Your task to perform on an android device: find photos in the google photos app Image 0: 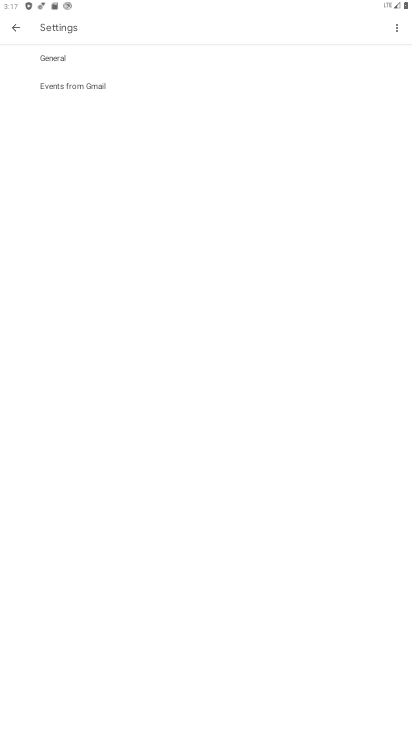
Step 0: press home button
Your task to perform on an android device: find photos in the google photos app Image 1: 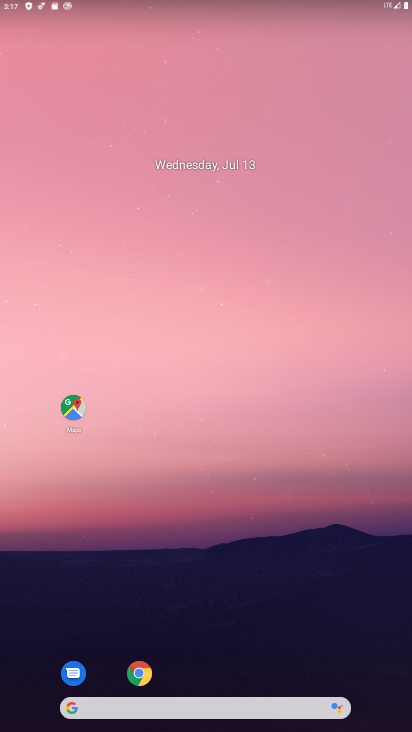
Step 1: drag from (225, 720) to (224, 73)
Your task to perform on an android device: find photos in the google photos app Image 2: 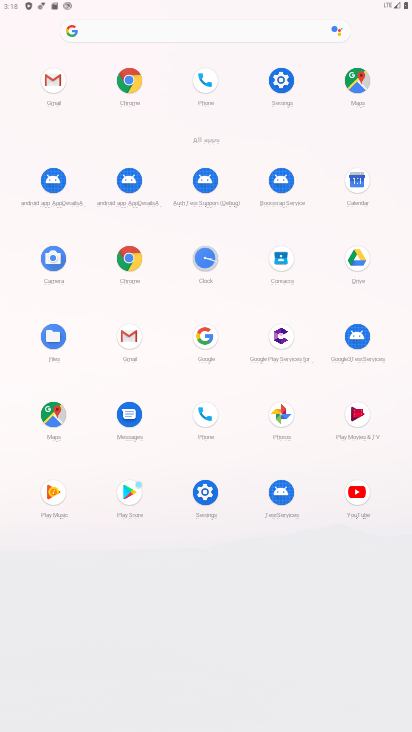
Step 2: click (279, 415)
Your task to perform on an android device: find photos in the google photos app Image 3: 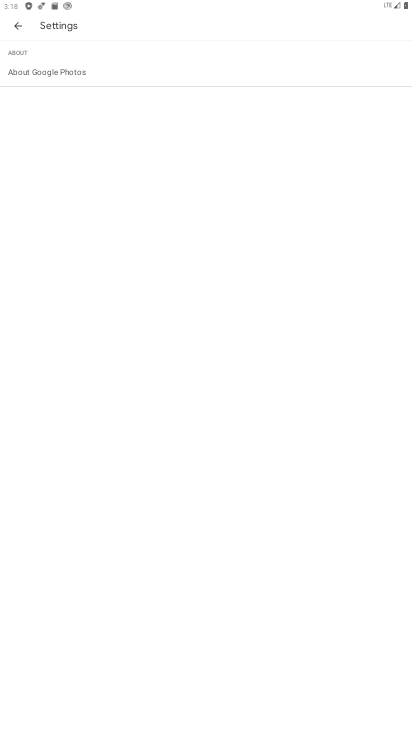
Step 3: click (16, 24)
Your task to perform on an android device: find photos in the google photos app Image 4: 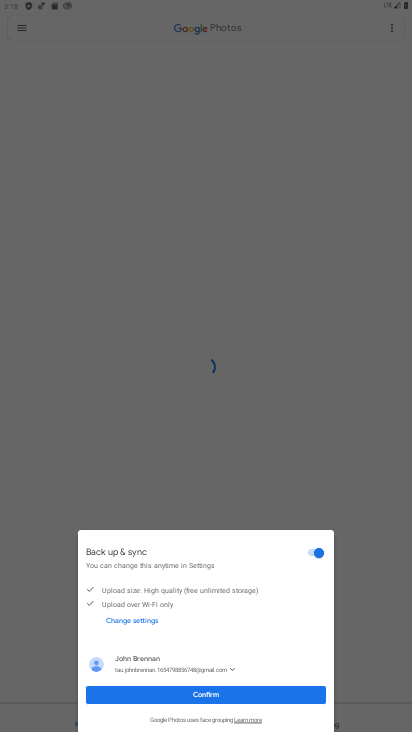
Step 4: click (160, 695)
Your task to perform on an android device: find photos in the google photos app Image 5: 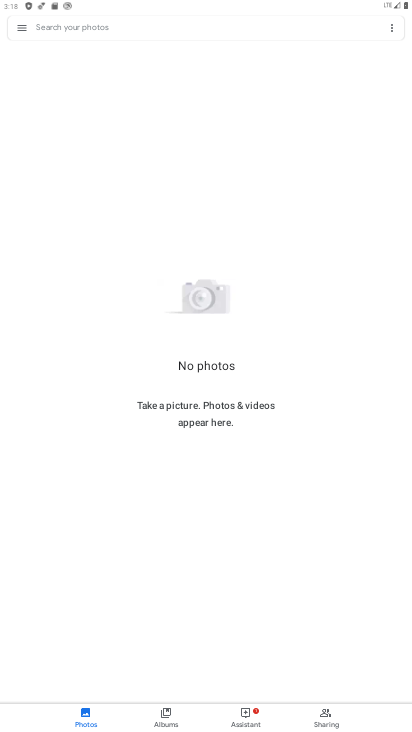
Step 5: task complete